Your task to perform on an android device: Open Google Image 0: 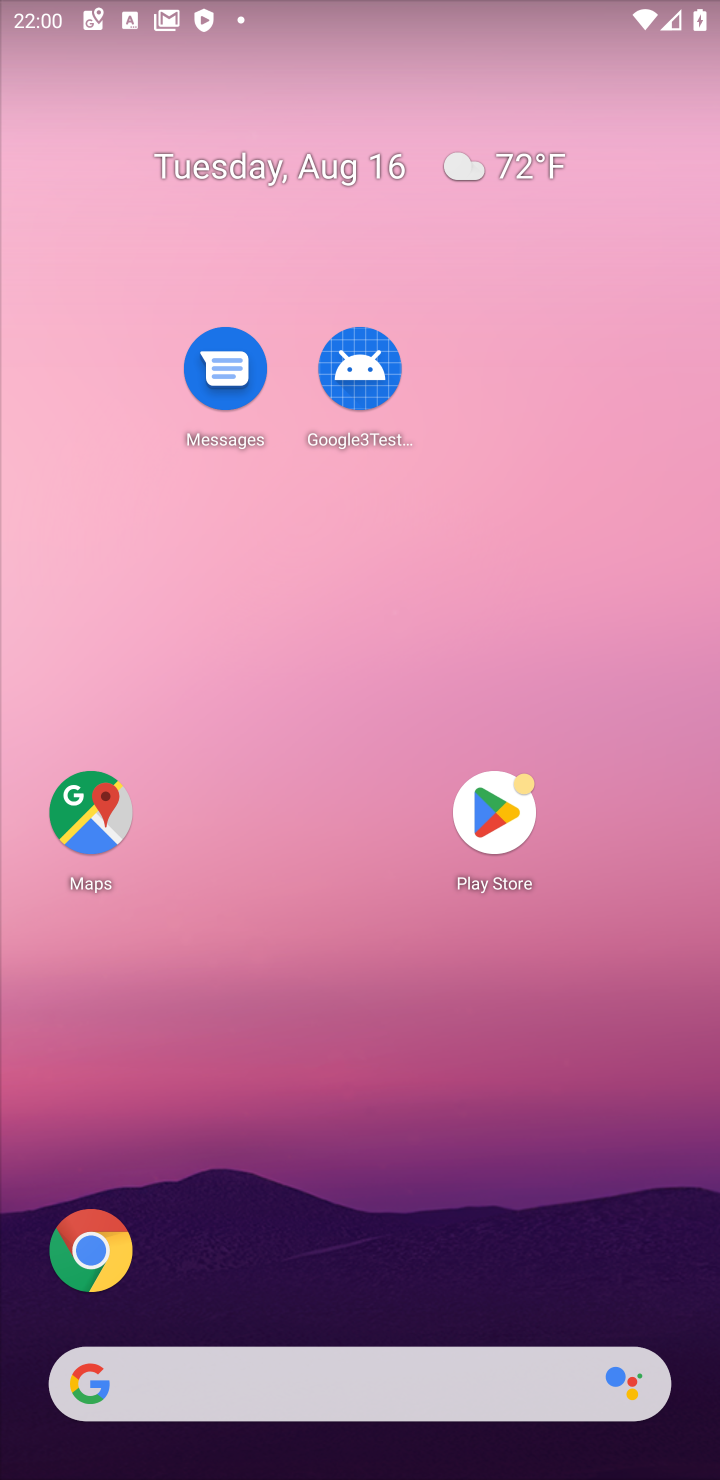
Step 0: click (394, 1379)
Your task to perform on an android device: Open Google Image 1: 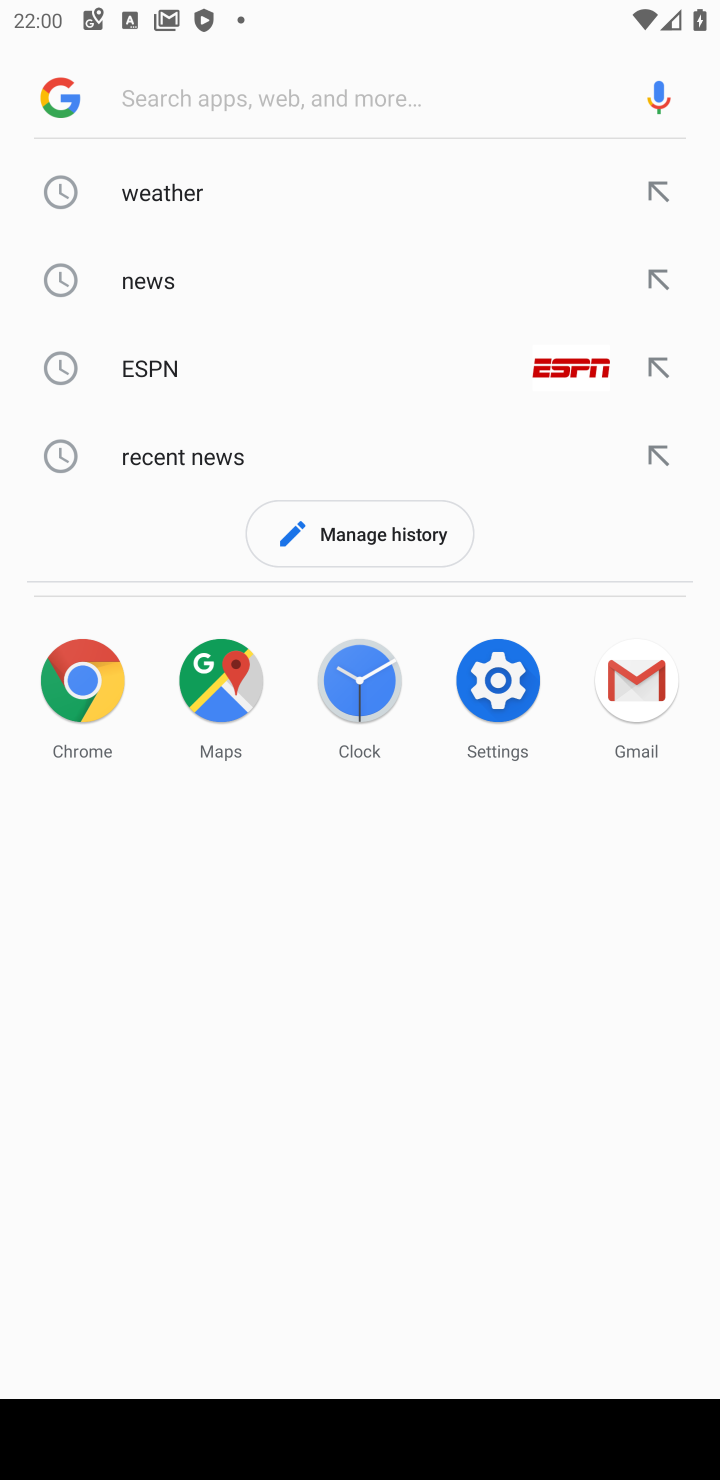
Step 1: task complete